Your task to perform on an android device: Open network settings Image 0: 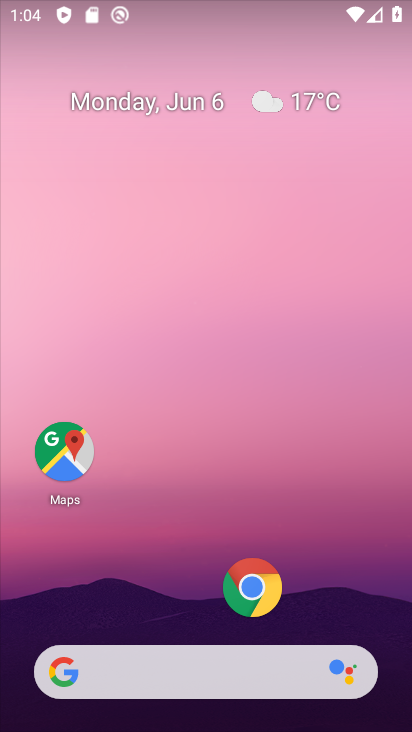
Step 0: drag from (164, 599) to (177, 85)
Your task to perform on an android device: Open network settings Image 1: 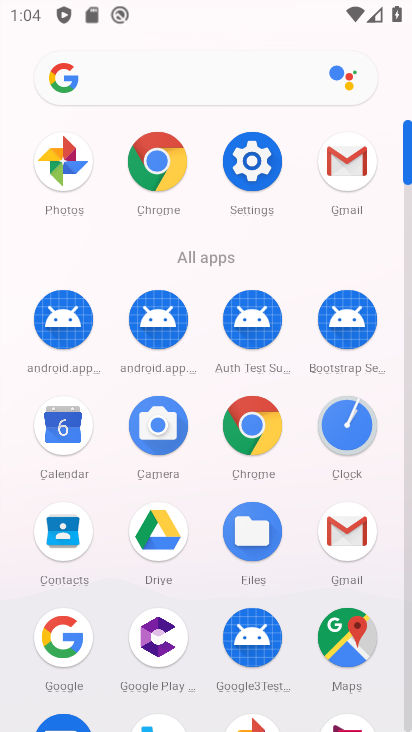
Step 1: click (256, 188)
Your task to perform on an android device: Open network settings Image 2: 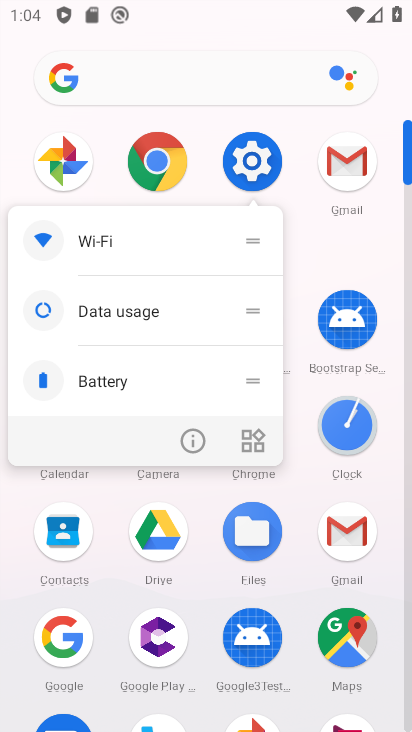
Step 2: click (256, 188)
Your task to perform on an android device: Open network settings Image 3: 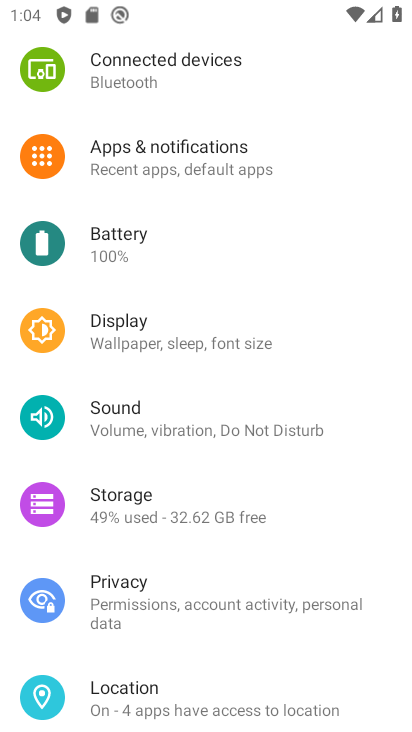
Step 3: drag from (231, 148) to (192, 602)
Your task to perform on an android device: Open network settings Image 4: 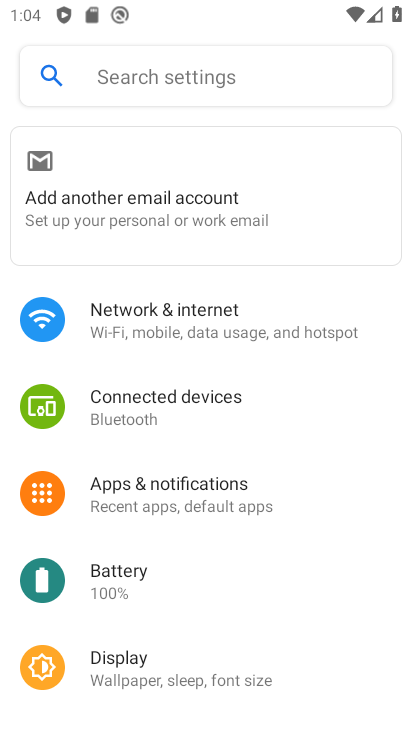
Step 4: click (197, 329)
Your task to perform on an android device: Open network settings Image 5: 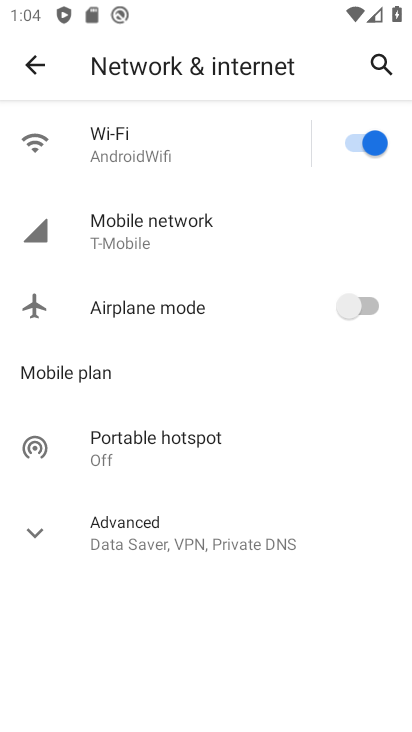
Step 5: task complete